Your task to perform on an android device: Is it going to rain tomorrow? Image 0: 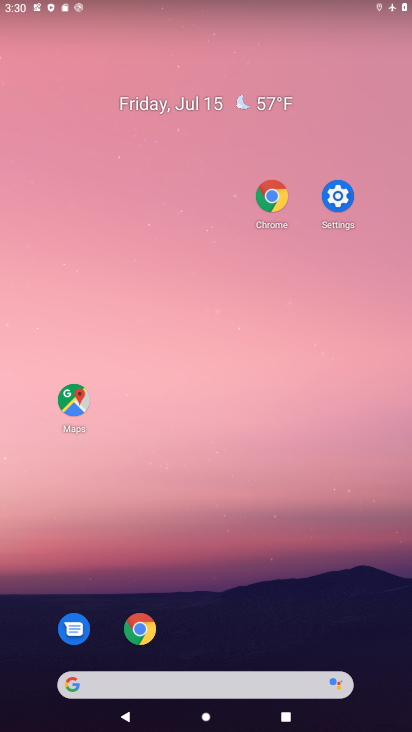
Step 0: drag from (215, 644) to (215, 51)
Your task to perform on an android device: Is it going to rain tomorrow? Image 1: 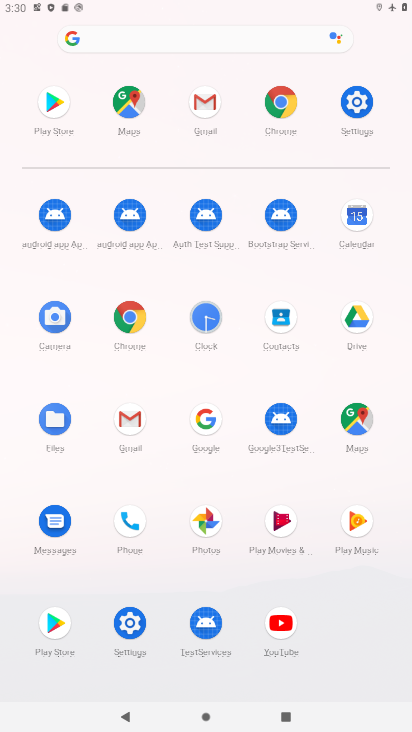
Step 1: click (273, 96)
Your task to perform on an android device: Is it going to rain tomorrow? Image 2: 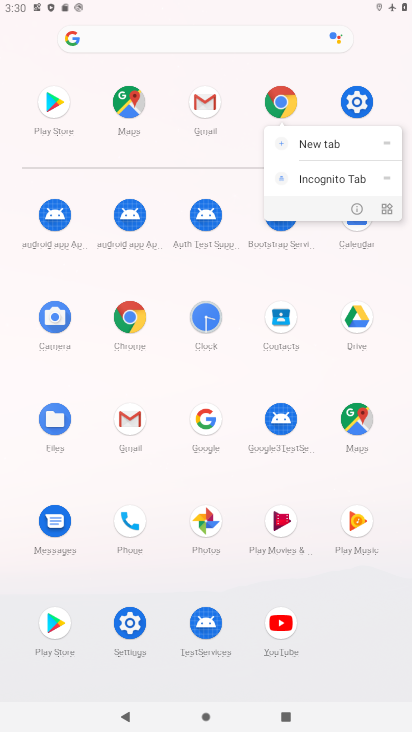
Step 2: click (280, 103)
Your task to perform on an android device: Is it going to rain tomorrow? Image 3: 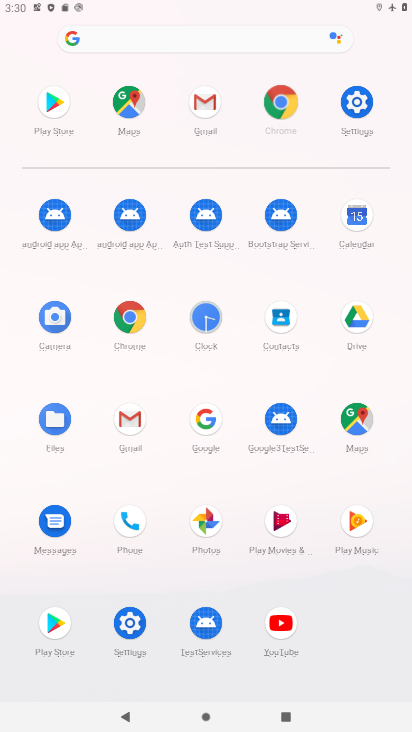
Step 3: click (283, 107)
Your task to perform on an android device: Is it going to rain tomorrow? Image 4: 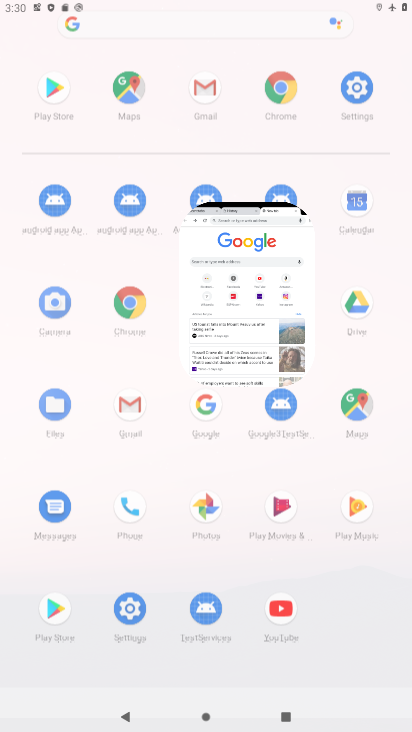
Step 4: click (283, 107)
Your task to perform on an android device: Is it going to rain tomorrow? Image 5: 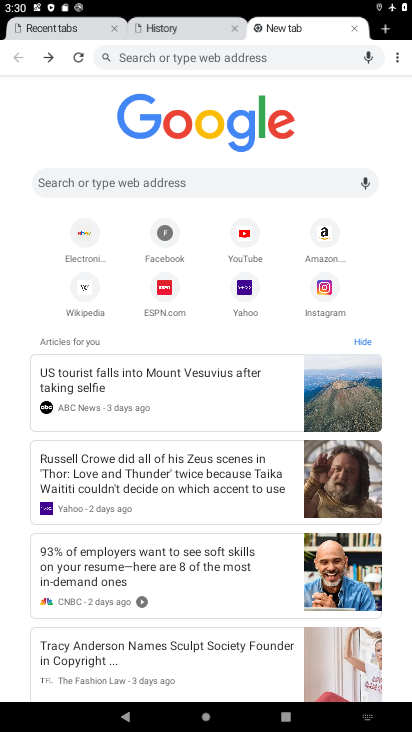
Step 5: click (129, 53)
Your task to perform on an android device: Is it going to rain tomorrow? Image 6: 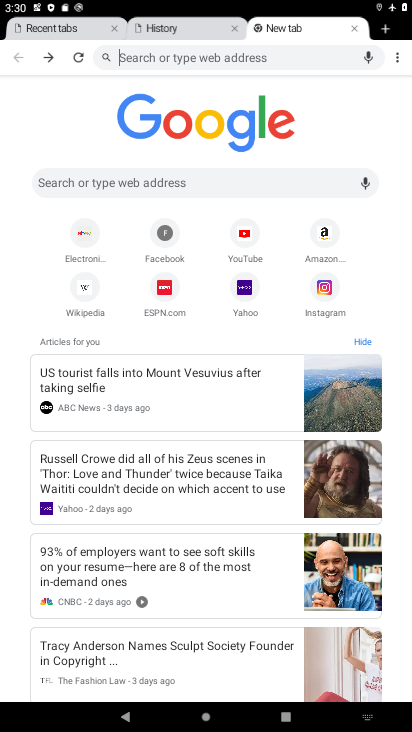
Step 6: click (129, 53)
Your task to perform on an android device: Is it going to rain tomorrow? Image 7: 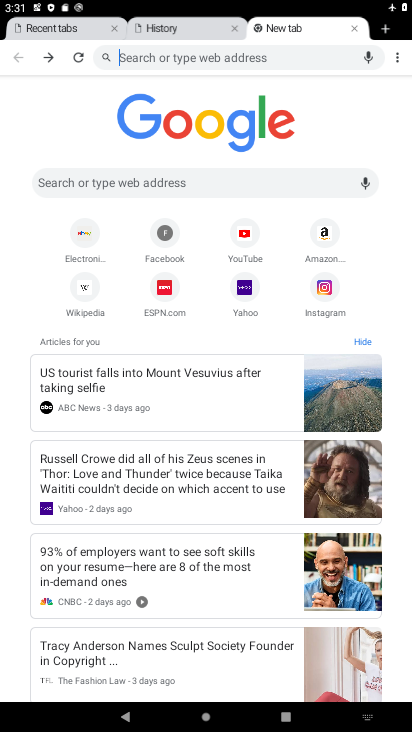
Step 7: type "is it going to rain tomorrow?"
Your task to perform on an android device: Is it going to rain tomorrow? Image 8: 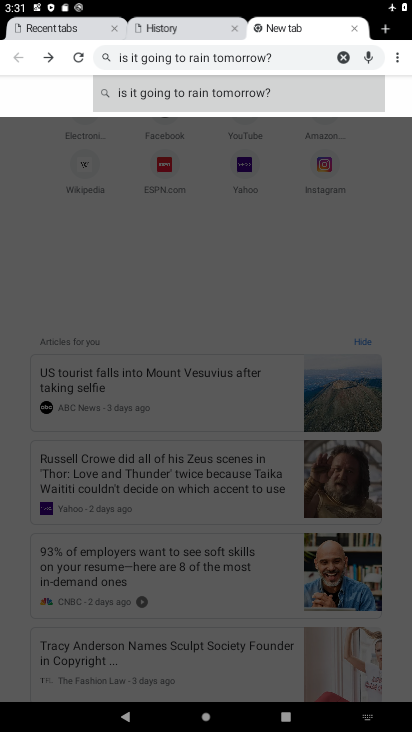
Step 8: click (264, 91)
Your task to perform on an android device: Is it going to rain tomorrow? Image 9: 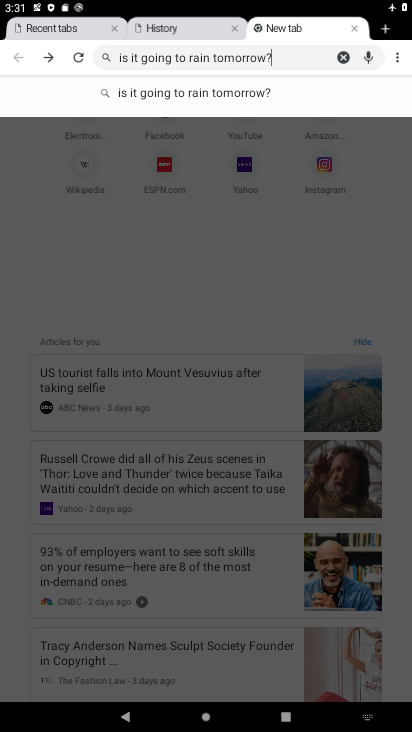
Step 9: click (264, 91)
Your task to perform on an android device: Is it going to rain tomorrow? Image 10: 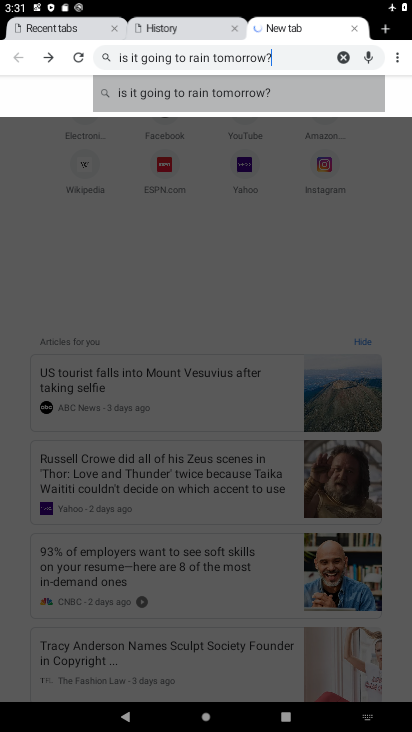
Step 10: click (269, 92)
Your task to perform on an android device: Is it going to rain tomorrow? Image 11: 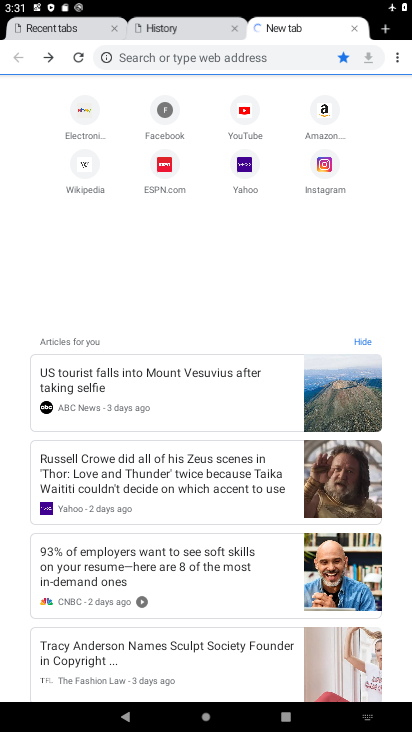
Step 11: click (293, 93)
Your task to perform on an android device: Is it going to rain tomorrow? Image 12: 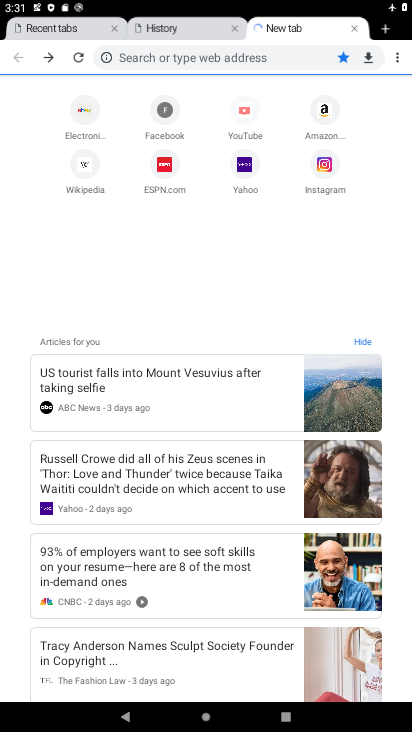
Step 12: click (295, 93)
Your task to perform on an android device: Is it going to rain tomorrow? Image 13: 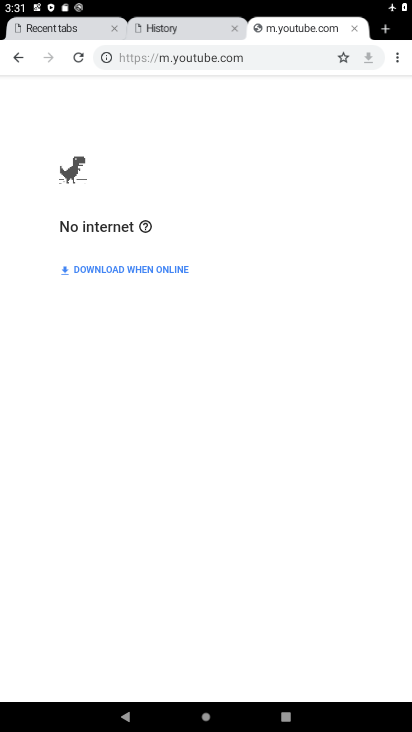
Step 13: click (235, 31)
Your task to perform on an android device: Is it going to rain tomorrow? Image 14: 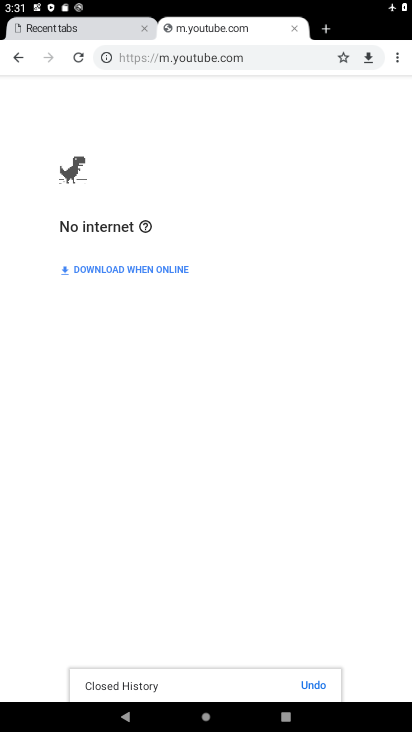
Step 14: task complete